Your task to perform on an android device: change the clock style Image 0: 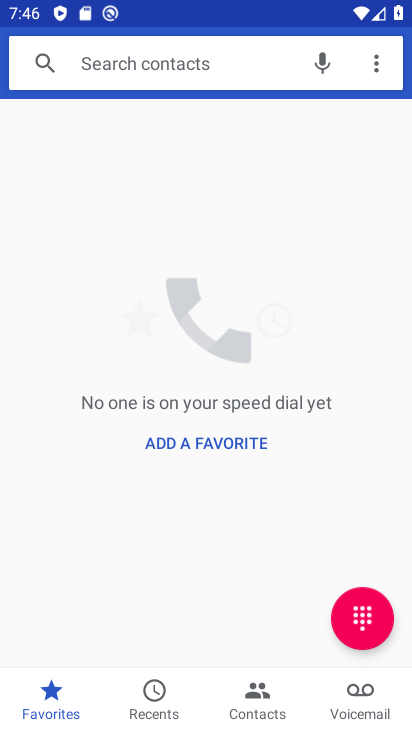
Step 0: press home button
Your task to perform on an android device: change the clock style Image 1: 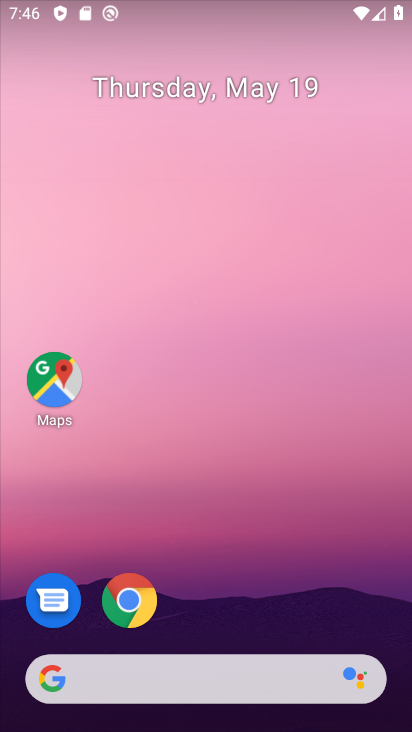
Step 1: drag from (215, 612) to (222, 304)
Your task to perform on an android device: change the clock style Image 2: 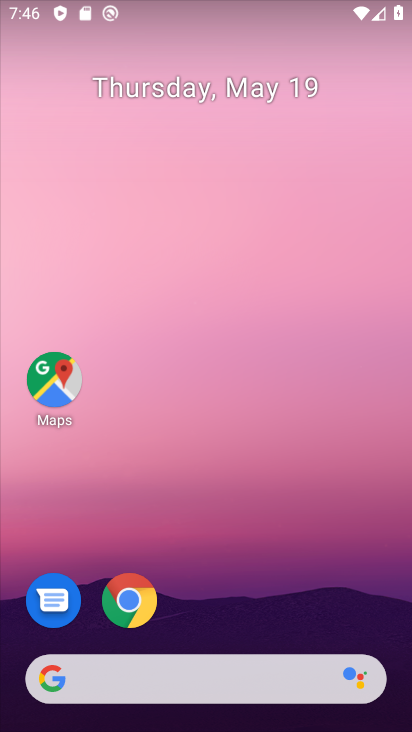
Step 2: drag from (271, 584) to (338, 61)
Your task to perform on an android device: change the clock style Image 3: 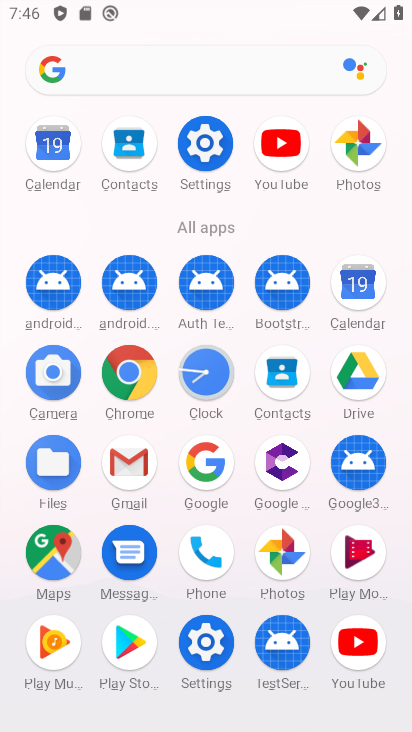
Step 3: click (222, 379)
Your task to perform on an android device: change the clock style Image 4: 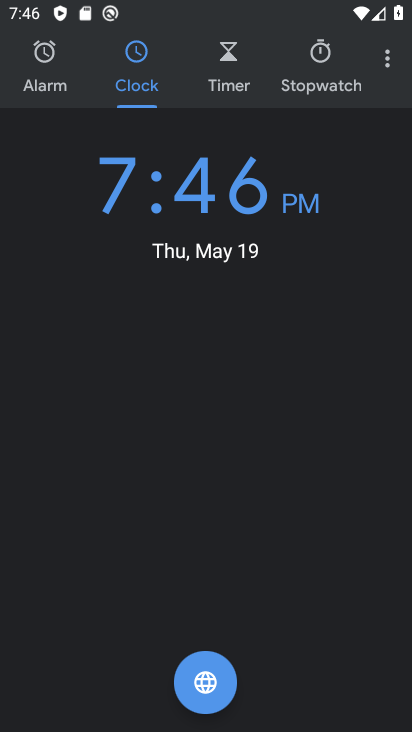
Step 4: click (391, 51)
Your task to perform on an android device: change the clock style Image 5: 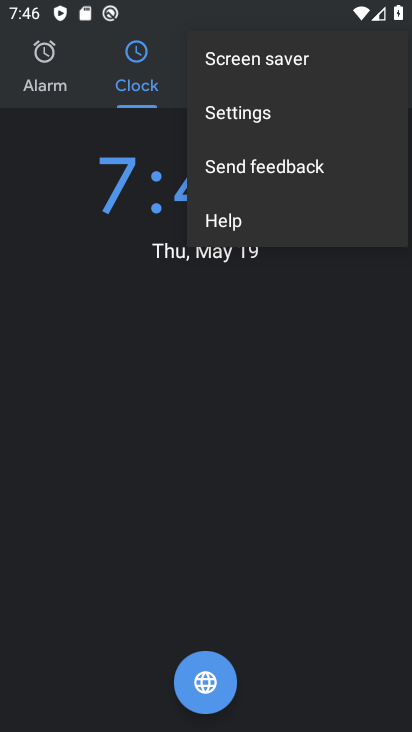
Step 5: click (331, 112)
Your task to perform on an android device: change the clock style Image 6: 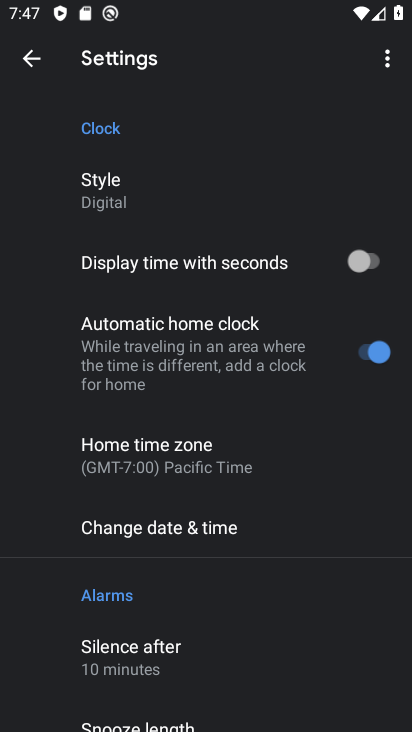
Step 6: click (166, 194)
Your task to perform on an android device: change the clock style Image 7: 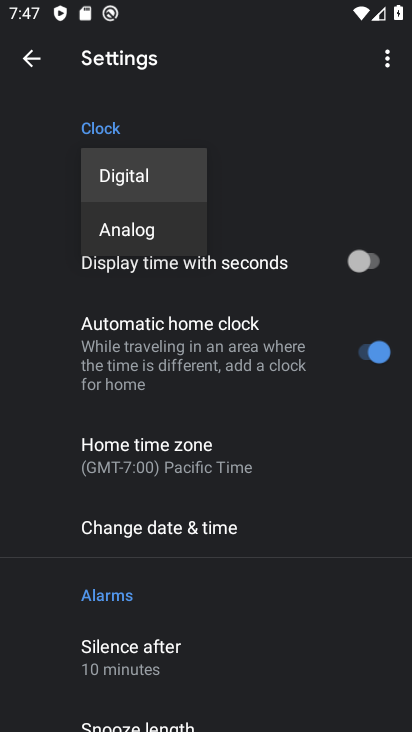
Step 7: click (161, 231)
Your task to perform on an android device: change the clock style Image 8: 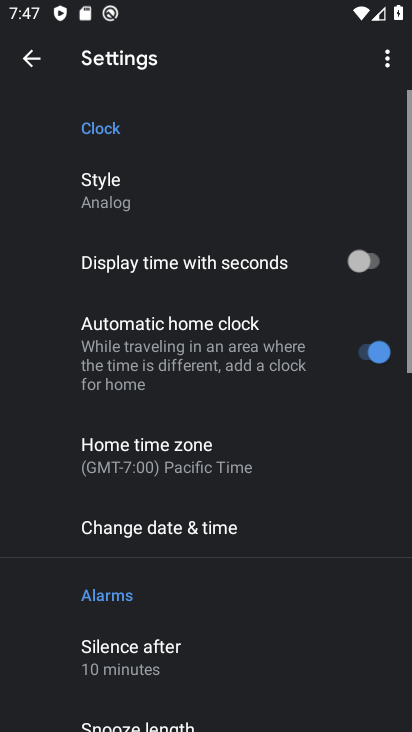
Step 8: task complete